Your task to perform on an android device: check out phone information Image 0: 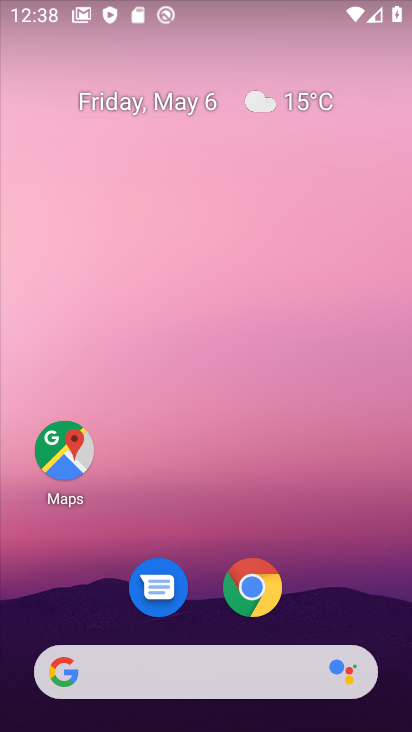
Step 0: drag from (331, 574) to (259, 212)
Your task to perform on an android device: check out phone information Image 1: 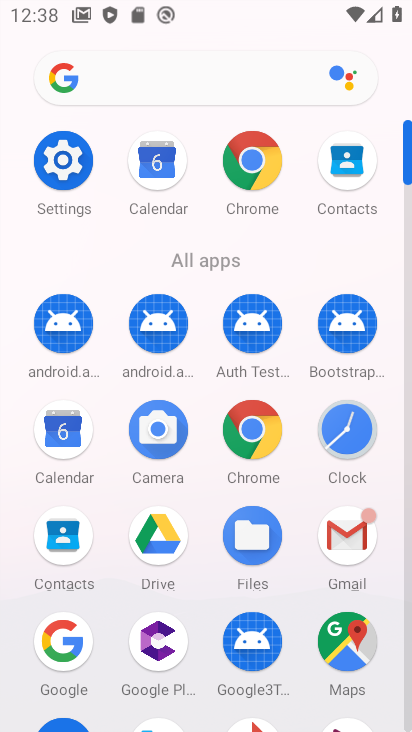
Step 1: click (38, 168)
Your task to perform on an android device: check out phone information Image 2: 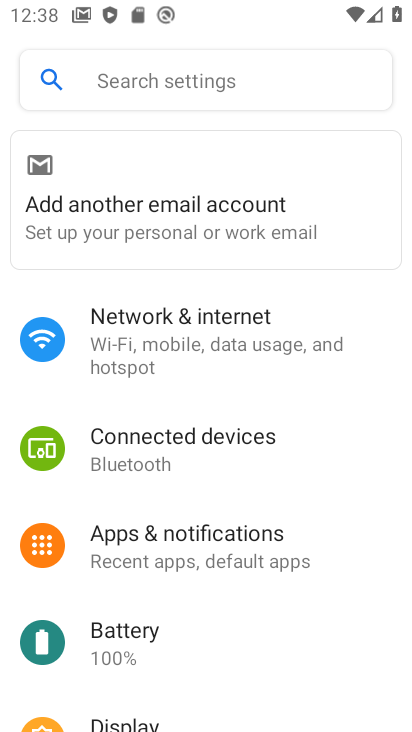
Step 2: drag from (234, 349) to (266, 215)
Your task to perform on an android device: check out phone information Image 3: 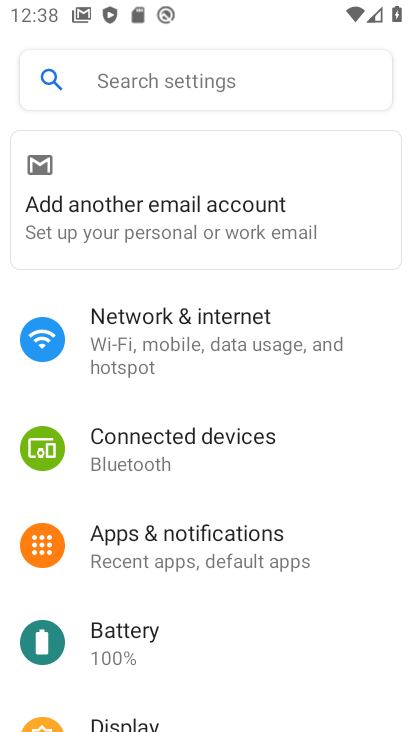
Step 3: drag from (222, 643) to (149, 206)
Your task to perform on an android device: check out phone information Image 4: 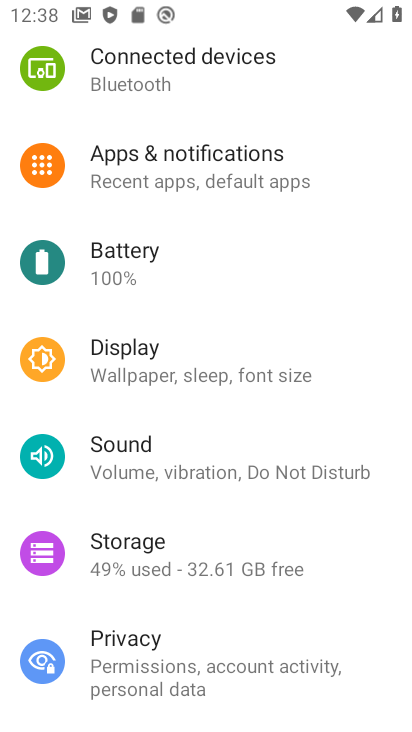
Step 4: drag from (204, 459) to (217, 169)
Your task to perform on an android device: check out phone information Image 5: 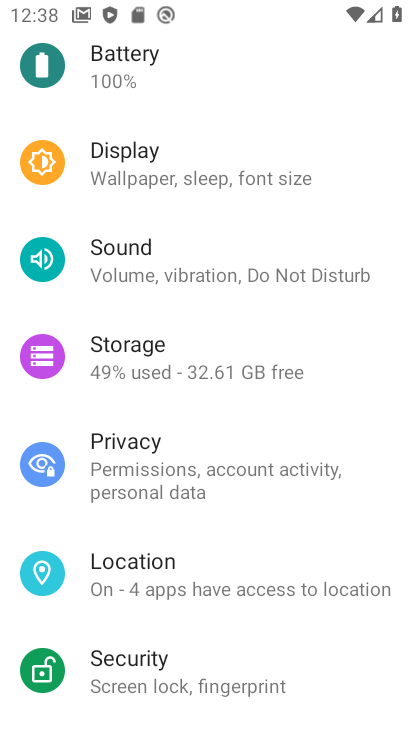
Step 5: drag from (178, 657) to (204, 118)
Your task to perform on an android device: check out phone information Image 6: 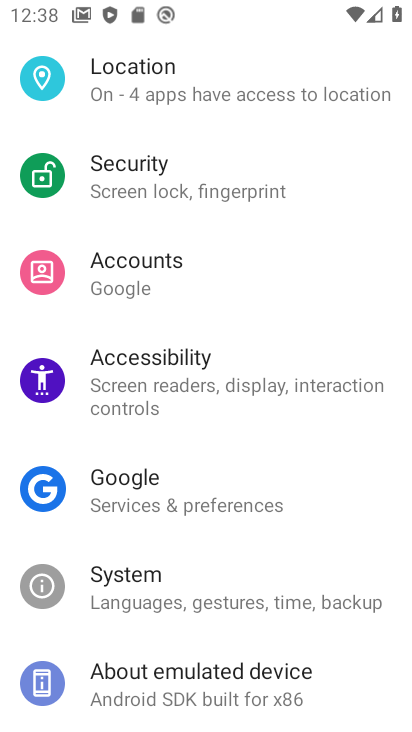
Step 6: click (123, 715)
Your task to perform on an android device: check out phone information Image 7: 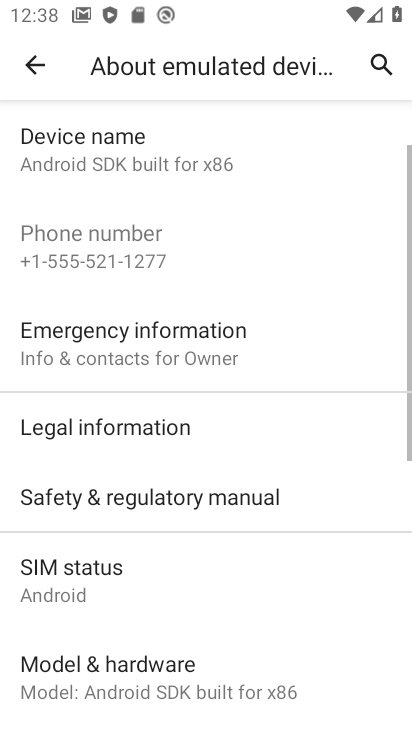
Step 7: click (115, 684)
Your task to perform on an android device: check out phone information Image 8: 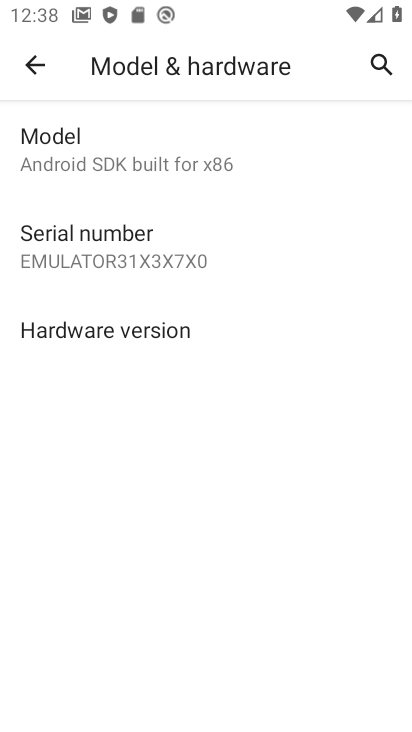
Step 8: task complete